Your task to perform on an android device: set an alarm Image 0: 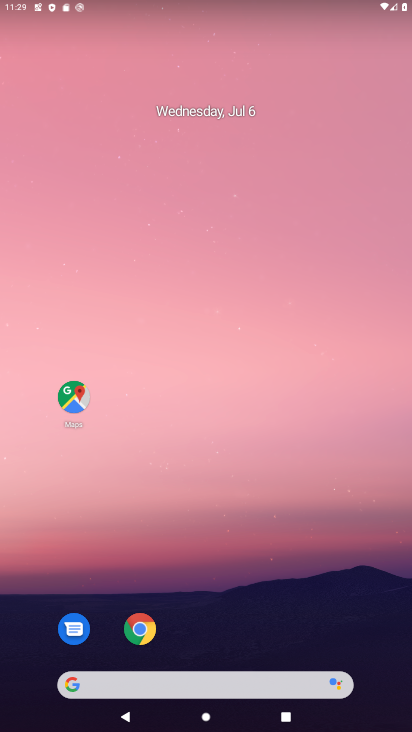
Step 0: drag from (220, 588) to (187, 88)
Your task to perform on an android device: set an alarm Image 1: 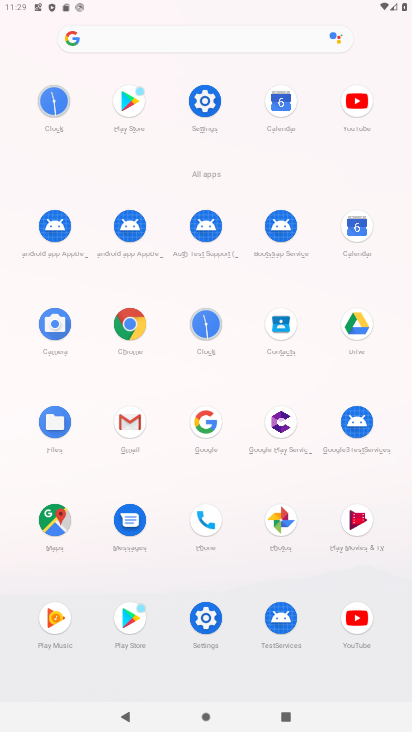
Step 1: click (55, 102)
Your task to perform on an android device: set an alarm Image 2: 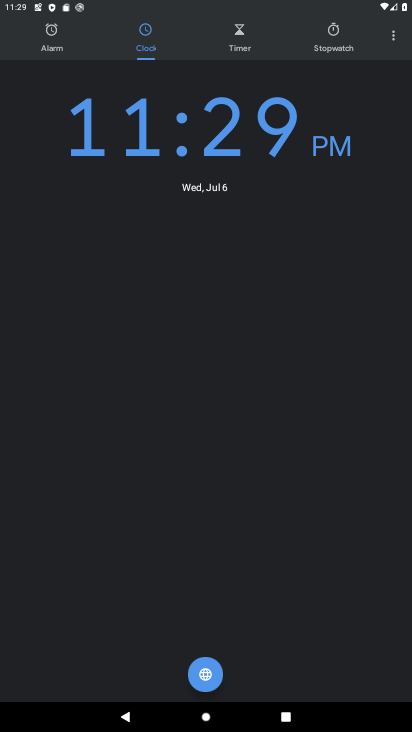
Step 2: click (51, 32)
Your task to perform on an android device: set an alarm Image 3: 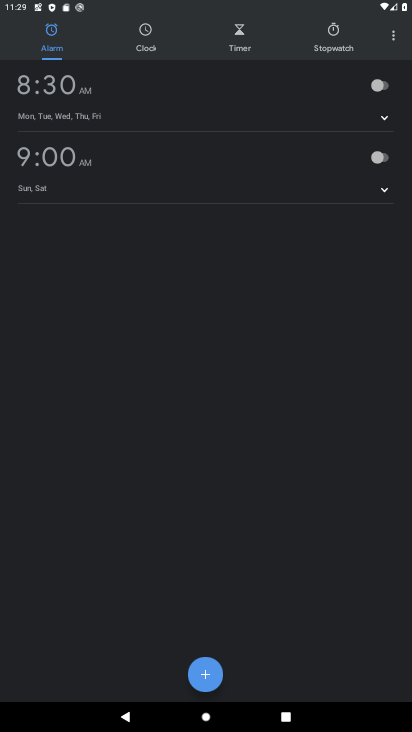
Step 3: click (207, 675)
Your task to perform on an android device: set an alarm Image 4: 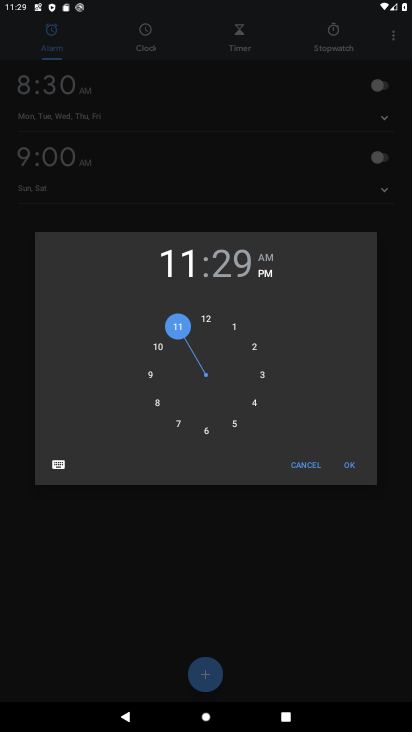
Step 4: click (215, 441)
Your task to perform on an android device: set an alarm Image 5: 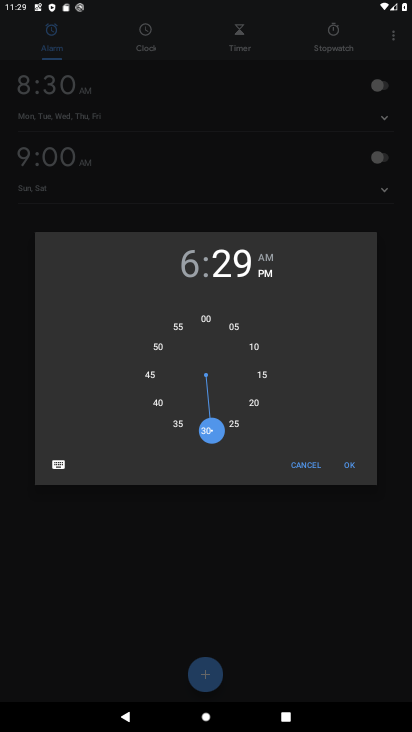
Step 5: click (187, 424)
Your task to perform on an android device: set an alarm Image 6: 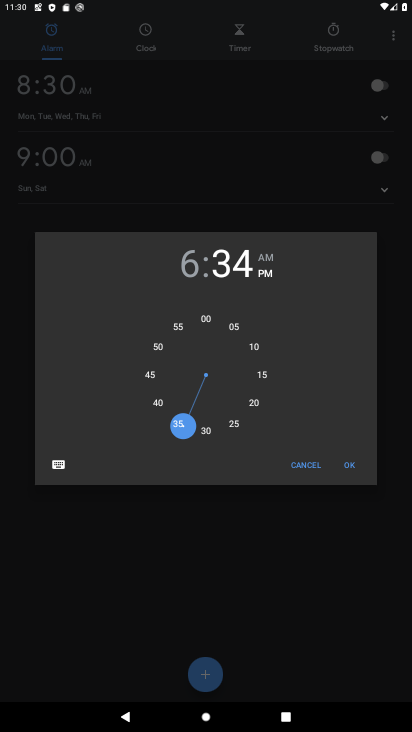
Step 6: click (358, 467)
Your task to perform on an android device: set an alarm Image 7: 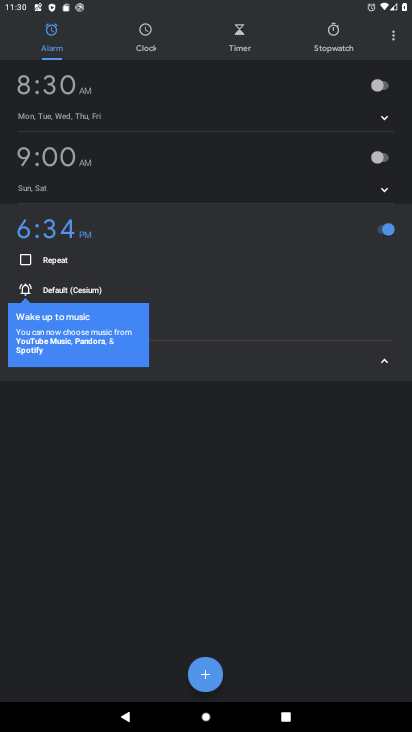
Step 7: click (386, 367)
Your task to perform on an android device: set an alarm Image 8: 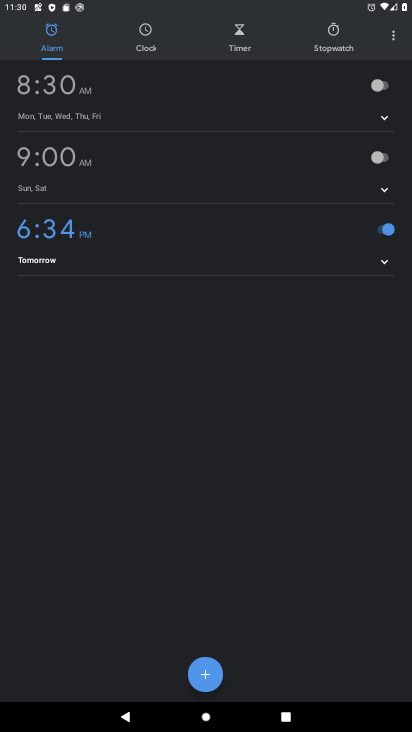
Step 8: task complete